Your task to perform on an android device: turn on javascript in the chrome app Image 0: 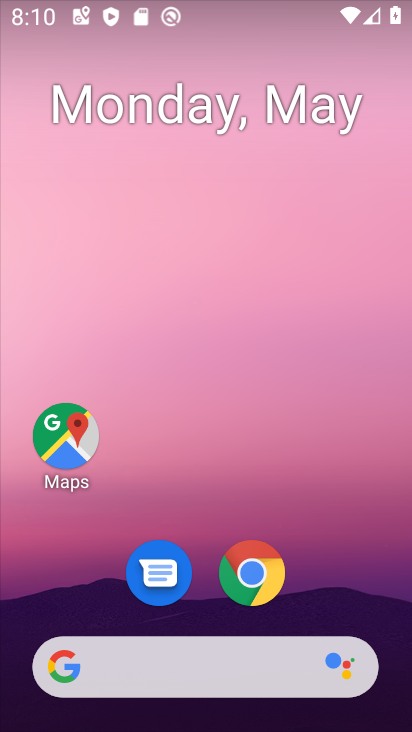
Step 0: click (250, 573)
Your task to perform on an android device: turn on javascript in the chrome app Image 1: 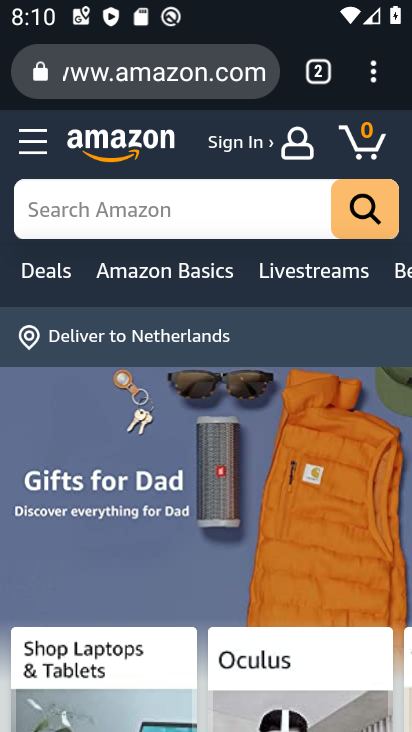
Step 1: click (387, 76)
Your task to perform on an android device: turn on javascript in the chrome app Image 2: 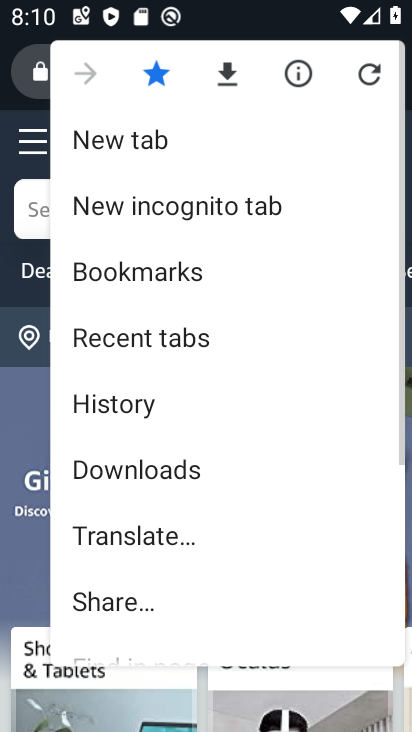
Step 2: drag from (116, 605) to (147, 427)
Your task to perform on an android device: turn on javascript in the chrome app Image 3: 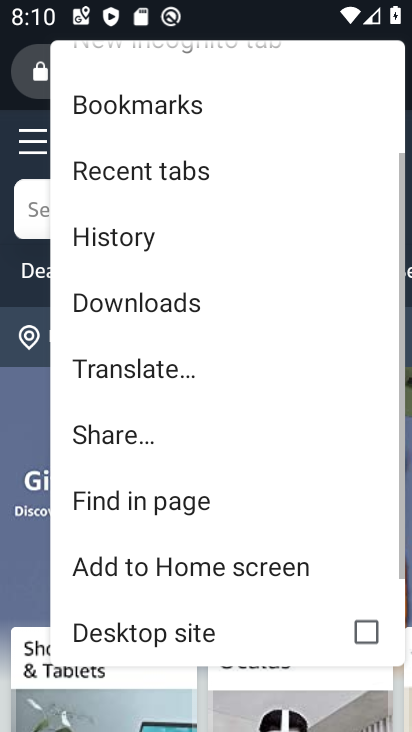
Step 3: drag from (130, 610) to (186, 357)
Your task to perform on an android device: turn on javascript in the chrome app Image 4: 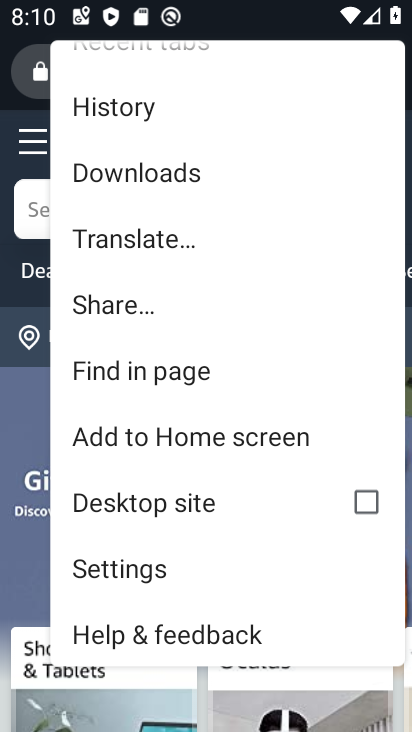
Step 4: click (161, 565)
Your task to perform on an android device: turn on javascript in the chrome app Image 5: 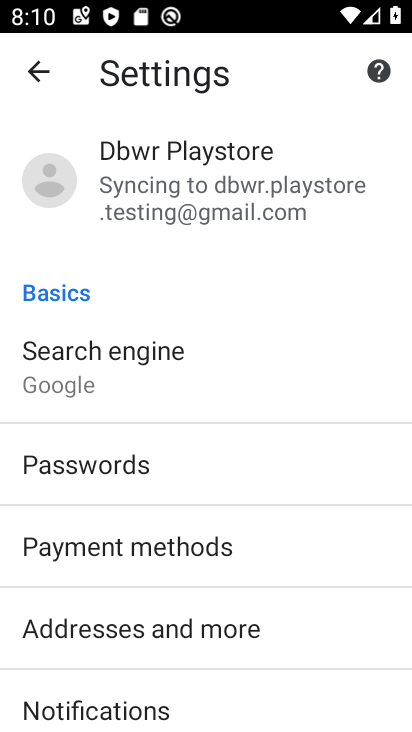
Step 5: drag from (161, 565) to (202, 339)
Your task to perform on an android device: turn on javascript in the chrome app Image 6: 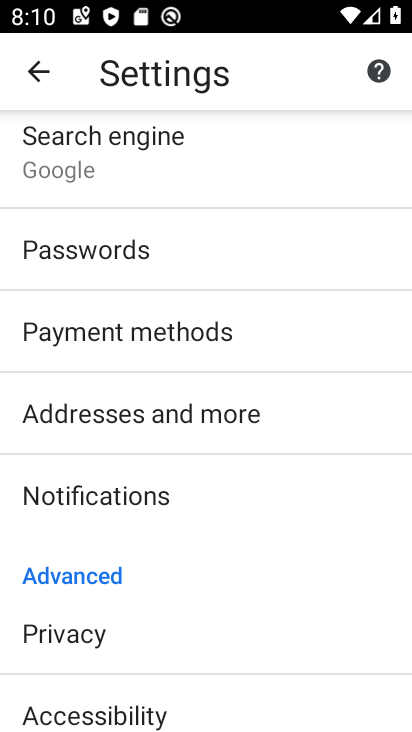
Step 6: drag from (164, 589) to (230, 307)
Your task to perform on an android device: turn on javascript in the chrome app Image 7: 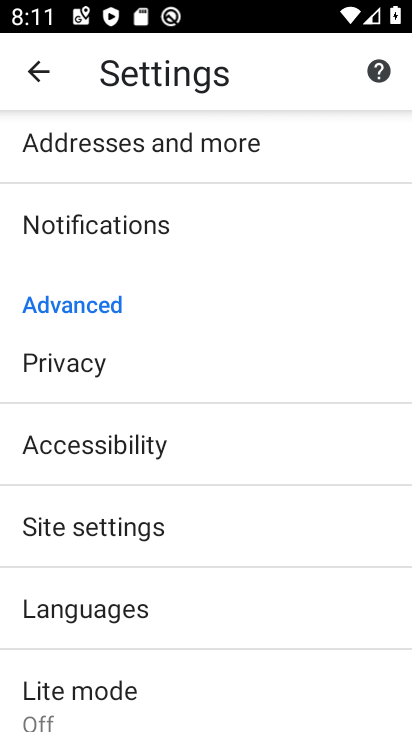
Step 7: click (151, 549)
Your task to perform on an android device: turn on javascript in the chrome app Image 8: 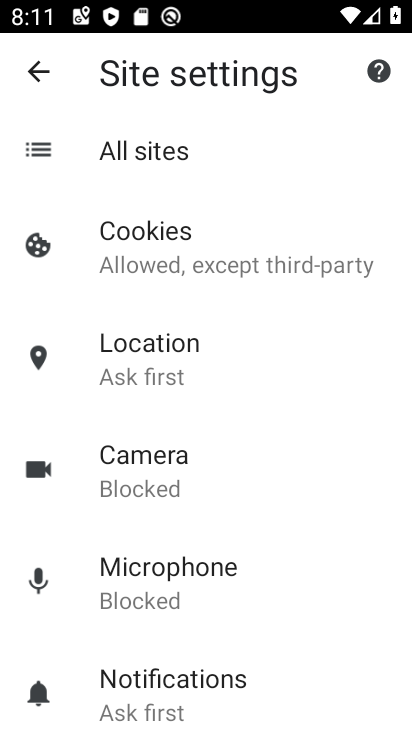
Step 8: drag from (212, 613) to (241, 400)
Your task to perform on an android device: turn on javascript in the chrome app Image 9: 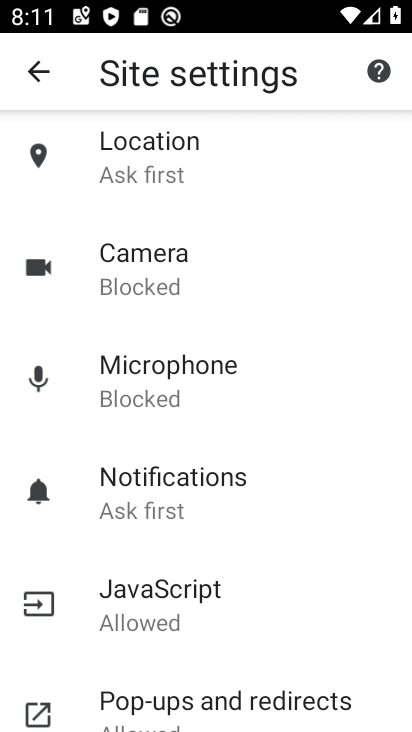
Step 9: click (141, 609)
Your task to perform on an android device: turn on javascript in the chrome app Image 10: 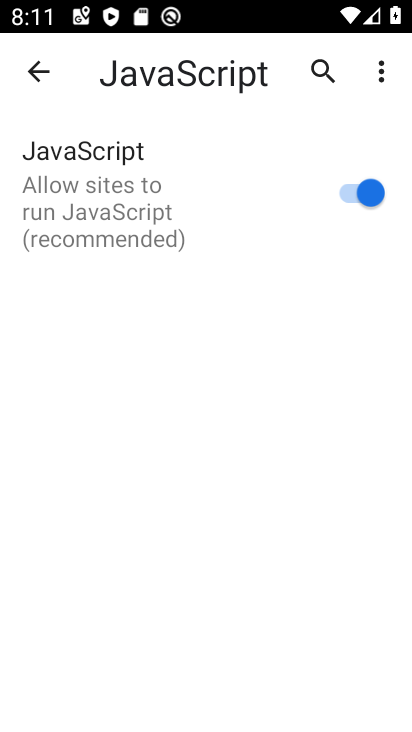
Step 10: click (345, 183)
Your task to perform on an android device: turn on javascript in the chrome app Image 11: 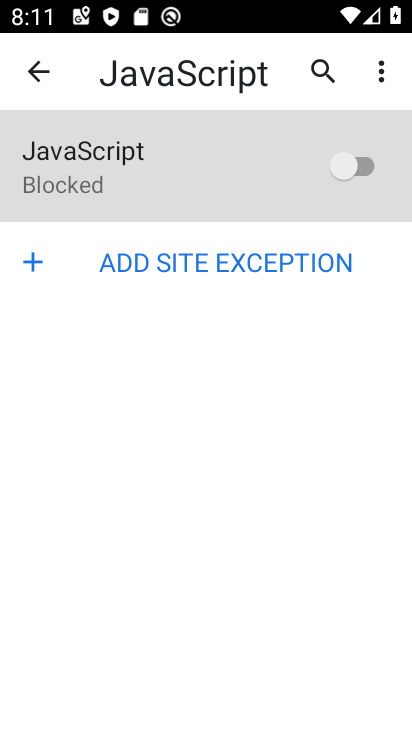
Step 11: click (345, 183)
Your task to perform on an android device: turn on javascript in the chrome app Image 12: 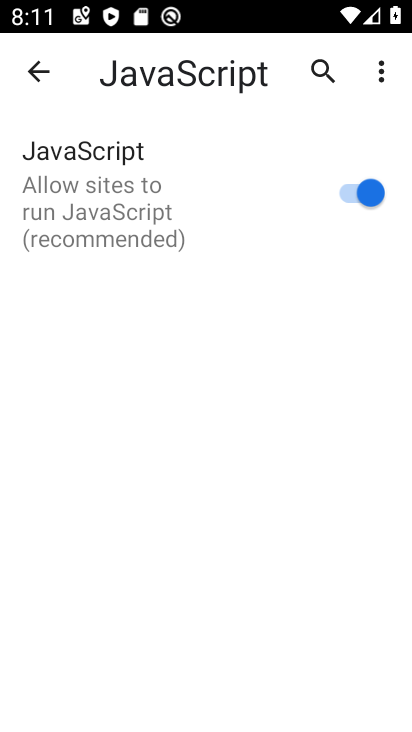
Step 12: task complete